Your task to perform on an android device: open wifi settings Image 0: 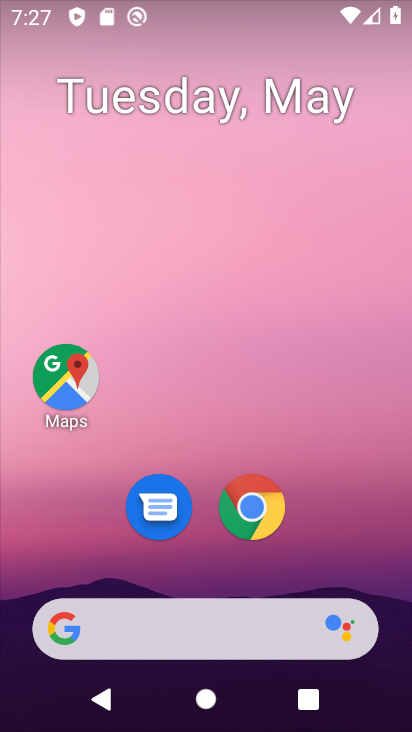
Step 0: drag from (275, 474) to (335, 29)
Your task to perform on an android device: open wifi settings Image 1: 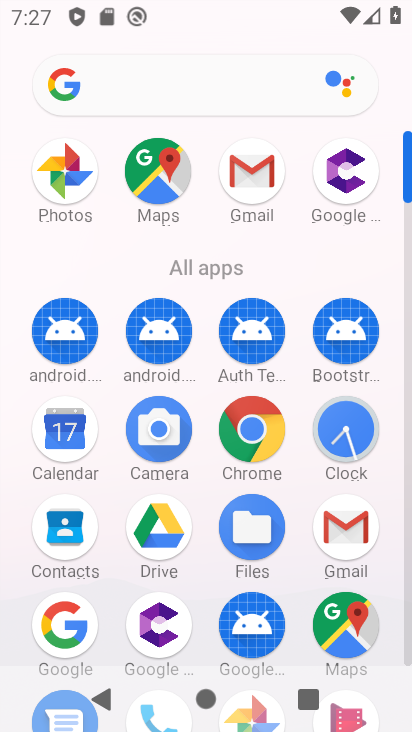
Step 1: drag from (115, 581) to (189, 348)
Your task to perform on an android device: open wifi settings Image 2: 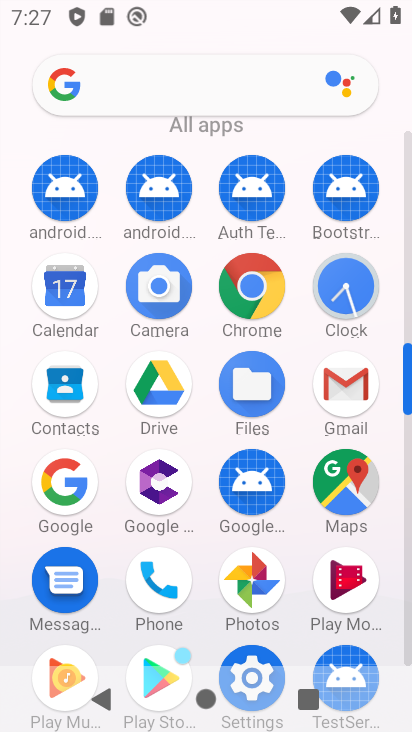
Step 2: drag from (207, 615) to (230, 462)
Your task to perform on an android device: open wifi settings Image 3: 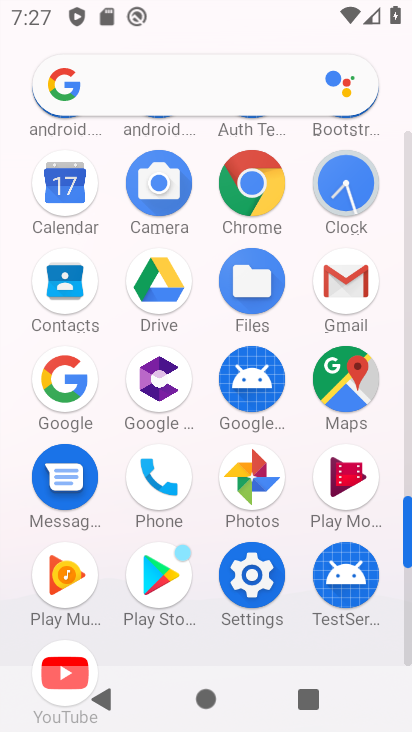
Step 3: click (242, 582)
Your task to perform on an android device: open wifi settings Image 4: 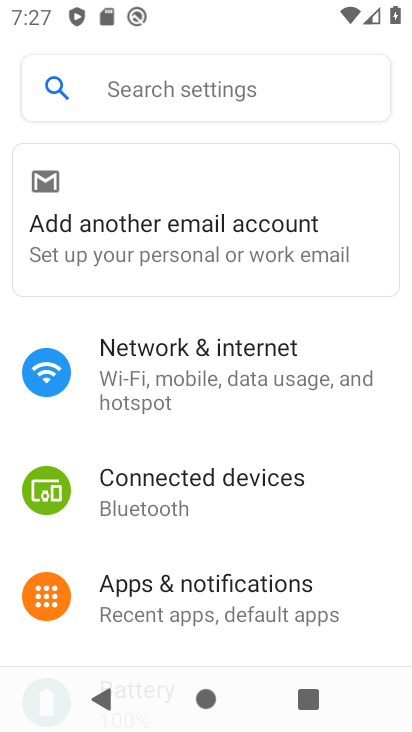
Step 4: click (158, 386)
Your task to perform on an android device: open wifi settings Image 5: 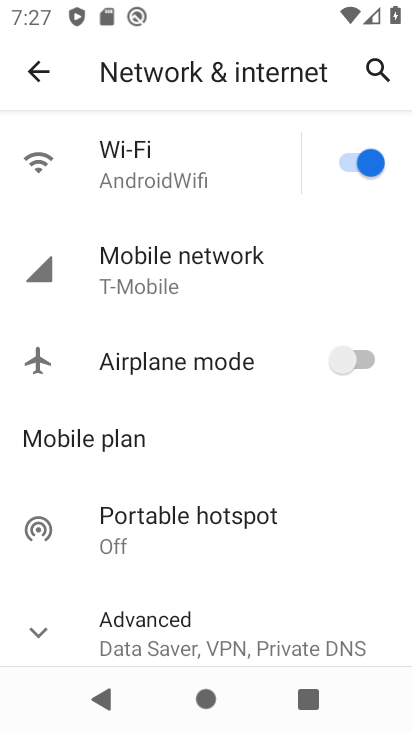
Step 5: click (30, 169)
Your task to perform on an android device: open wifi settings Image 6: 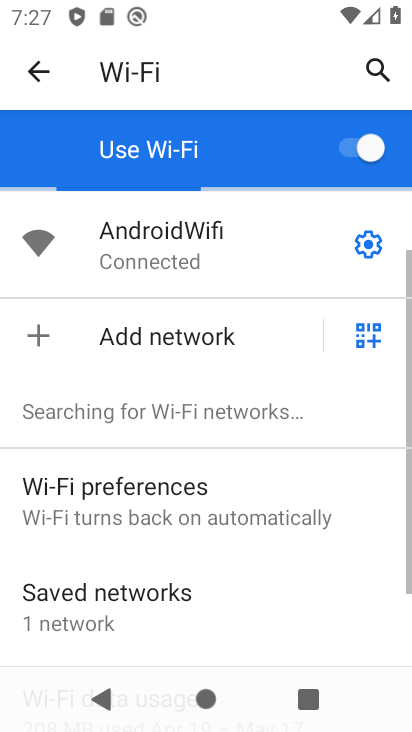
Step 6: task complete